Your task to perform on an android device: set the stopwatch Image 0: 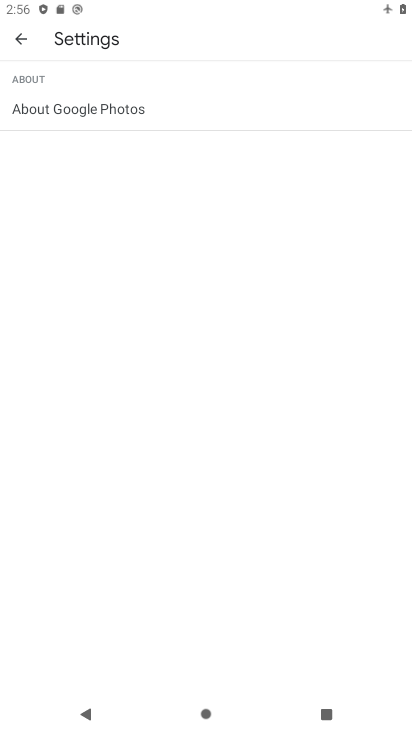
Step 0: press home button
Your task to perform on an android device: set the stopwatch Image 1: 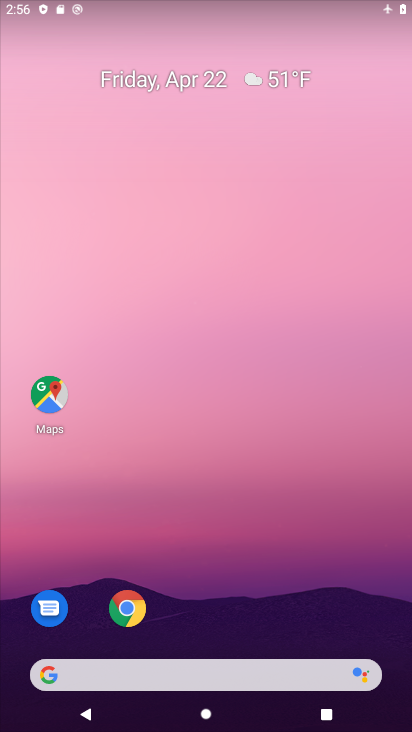
Step 1: drag from (286, 569) to (255, 36)
Your task to perform on an android device: set the stopwatch Image 2: 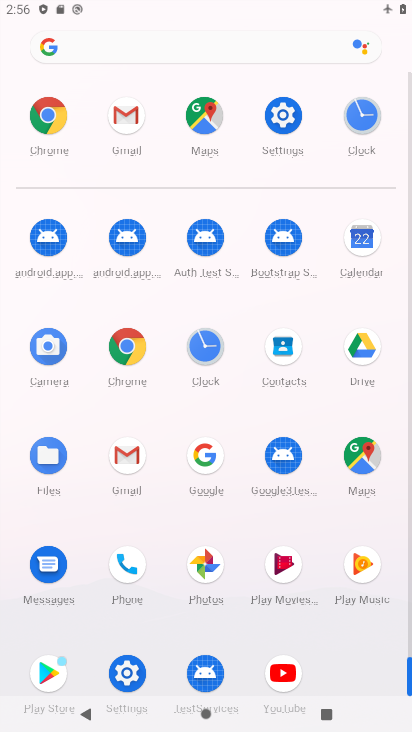
Step 2: click (366, 118)
Your task to perform on an android device: set the stopwatch Image 3: 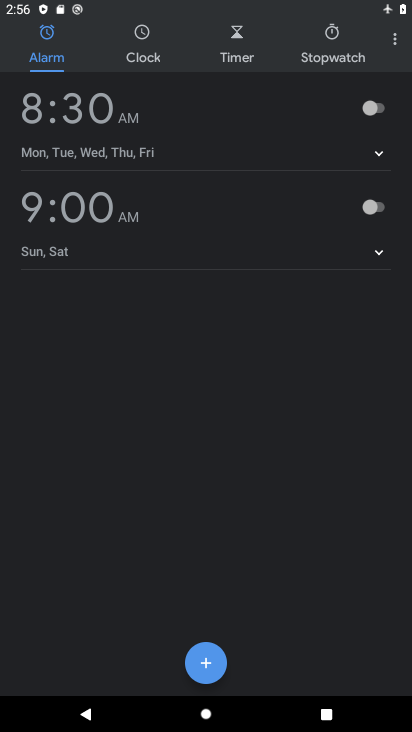
Step 3: click (336, 43)
Your task to perform on an android device: set the stopwatch Image 4: 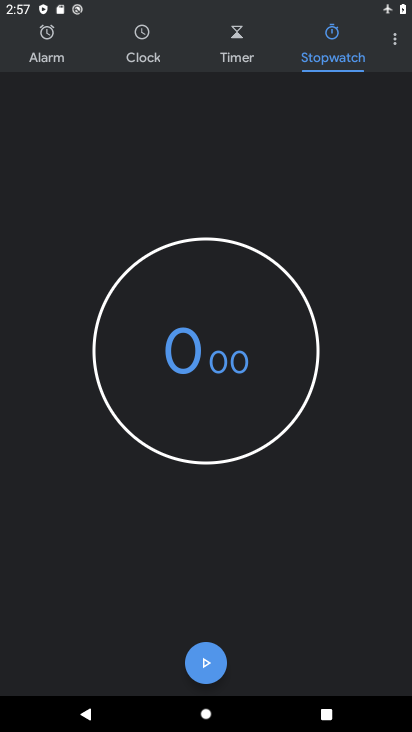
Step 4: click (195, 668)
Your task to perform on an android device: set the stopwatch Image 5: 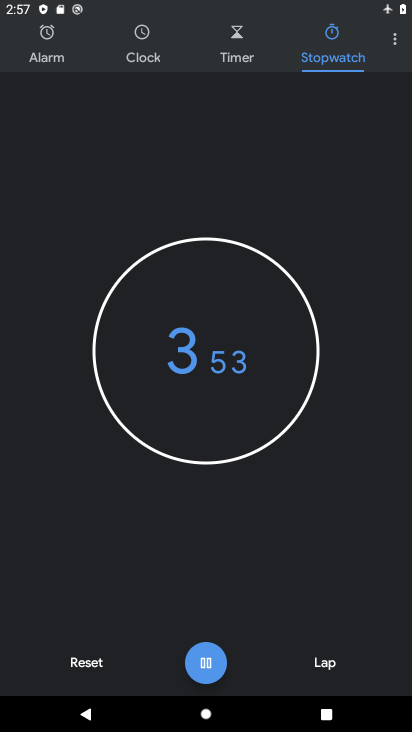
Step 5: task complete